Your task to perform on an android device: turn on the 24-hour format for clock Image 0: 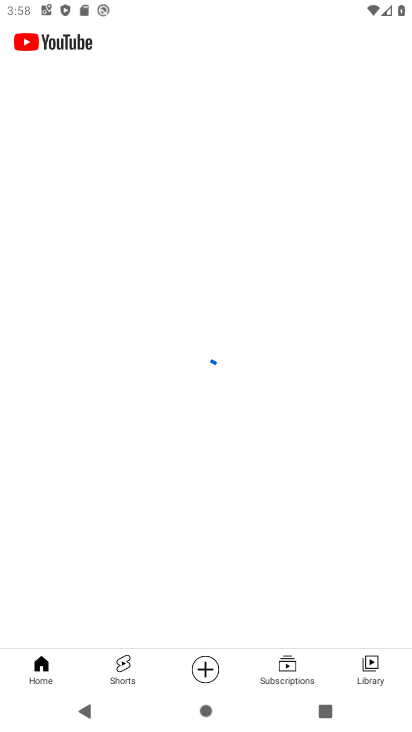
Step 0: click (143, 38)
Your task to perform on an android device: turn on the 24-hour format for clock Image 1: 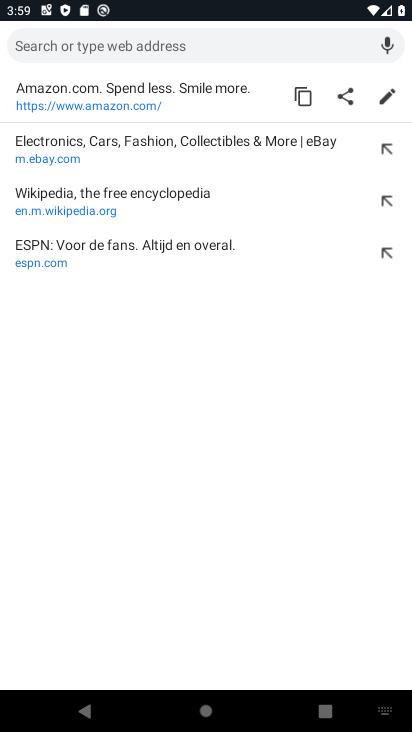
Step 1: press home button
Your task to perform on an android device: turn on the 24-hour format for clock Image 2: 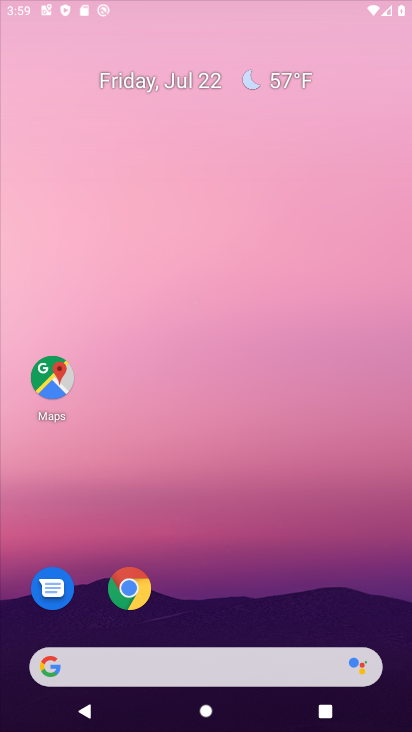
Step 2: drag from (228, 635) to (183, 1)
Your task to perform on an android device: turn on the 24-hour format for clock Image 3: 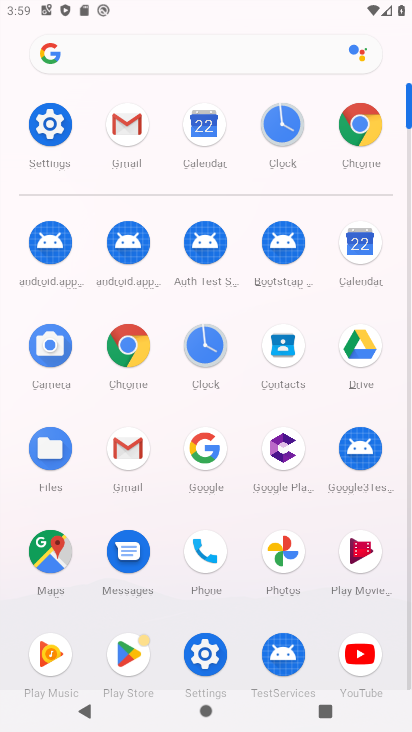
Step 3: click (196, 339)
Your task to perform on an android device: turn on the 24-hour format for clock Image 4: 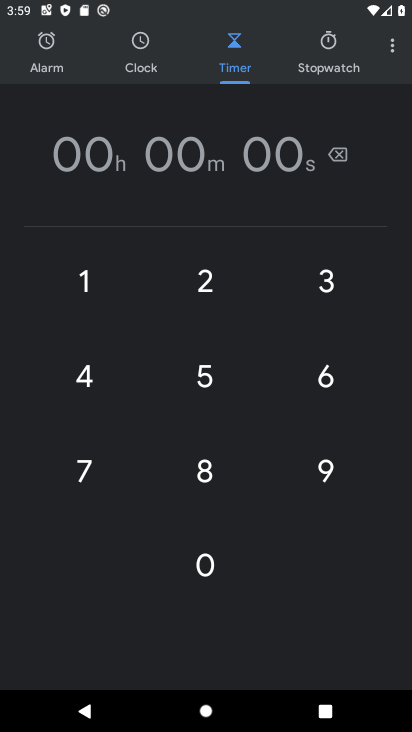
Step 4: drag from (388, 46) to (320, 98)
Your task to perform on an android device: turn on the 24-hour format for clock Image 5: 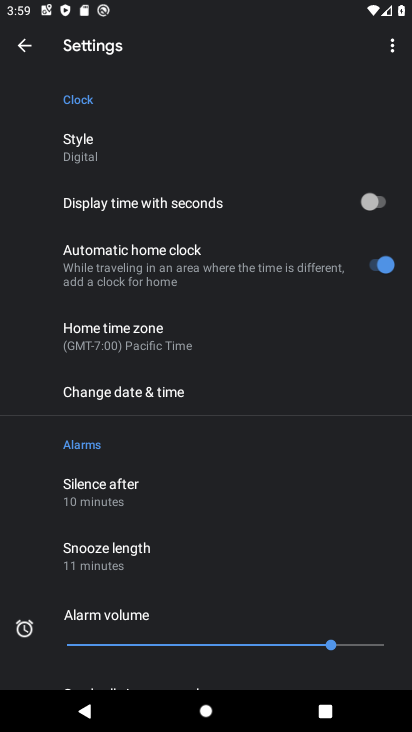
Step 5: click (120, 373)
Your task to perform on an android device: turn on the 24-hour format for clock Image 6: 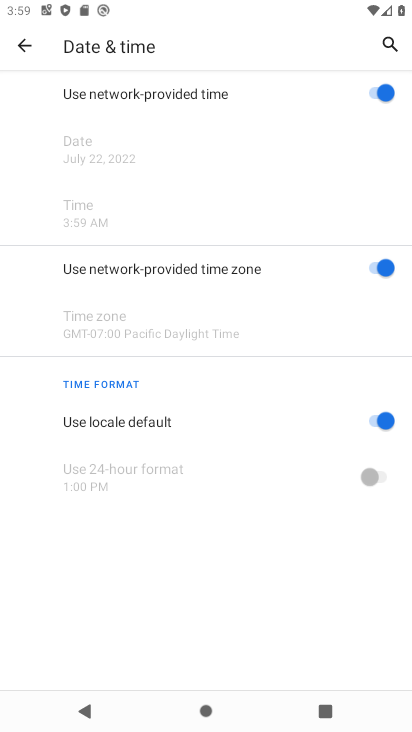
Step 6: click (379, 417)
Your task to perform on an android device: turn on the 24-hour format for clock Image 7: 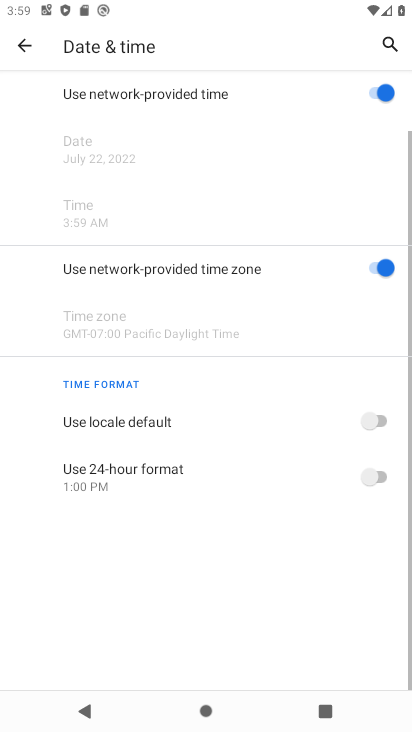
Step 7: click (370, 481)
Your task to perform on an android device: turn on the 24-hour format for clock Image 8: 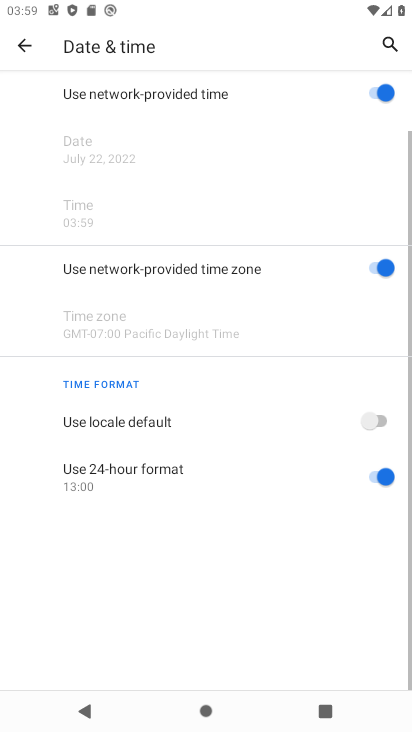
Step 8: task complete